Your task to perform on an android device: search for starred emails in the gmail app Image 0: 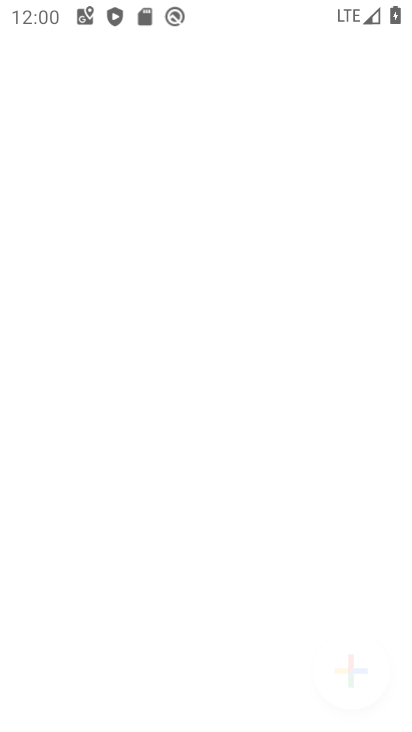
Step 0: drag from (383, 343) to (156, 8)
Your task to perform on an android device: search for starred emails in the gmail app Image 1: 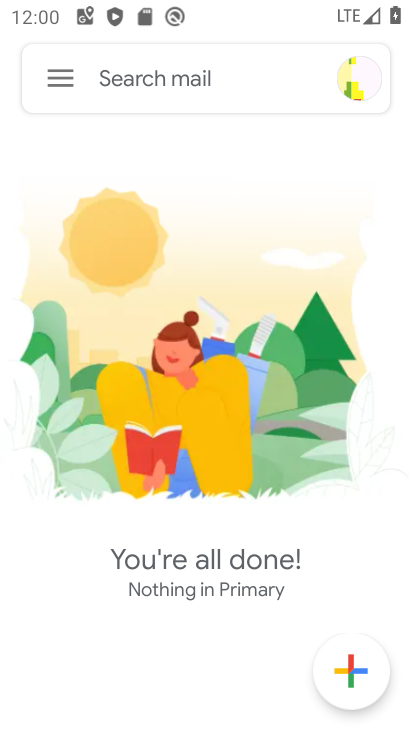
Step 1: click (66, 89)
Your task to perform on an android device: search for starred emails in the gmail app Image 2: 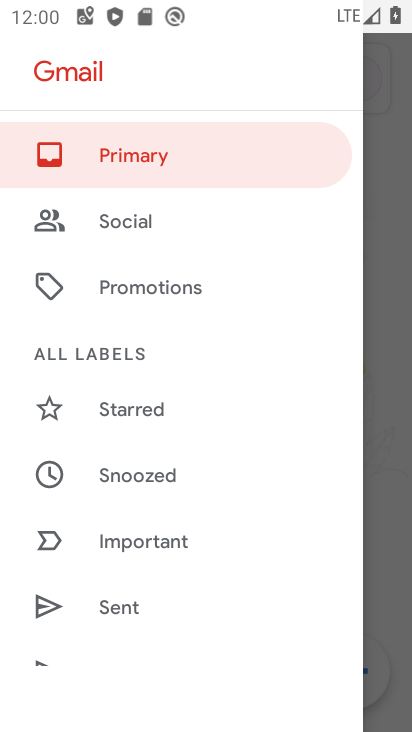
Step 2: drag from (223, 506) to (253, 167)
Your task to perform on an android device: search for starred emails in the gmail app Image 3: 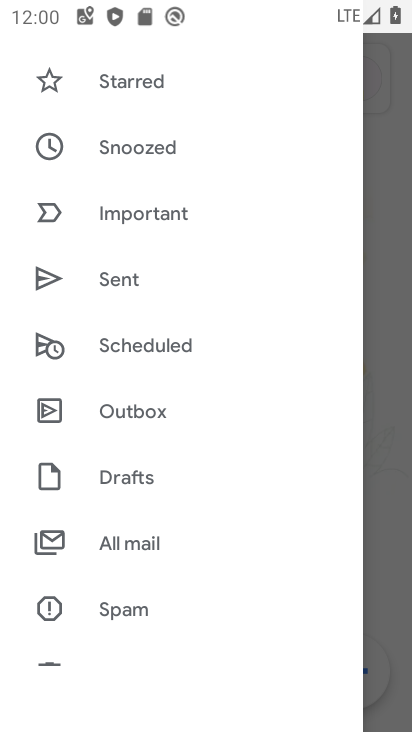
Step 3: click (133, 82)
Your task to perform on an android device: search for starred emails in the gmail app Image 4: 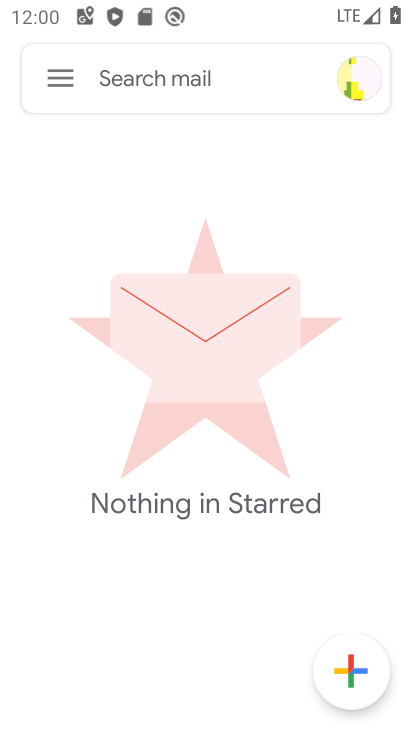
Step 4: task complete